Your task to perform on an android device: Go to Wikipedia Image 0: 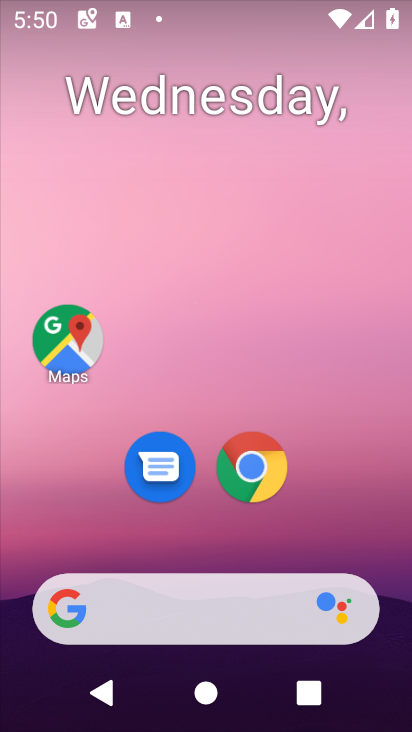
Step 0: click (262, 464)
Your task to perform on an android device: Go to Wikipedia Image 1: 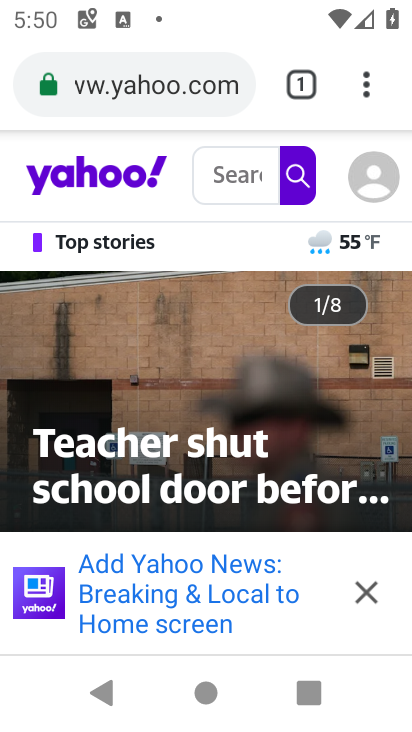
Step 1: click (354, 85)
Your task to perform on an android device: Go to Wikipedia Image 2: 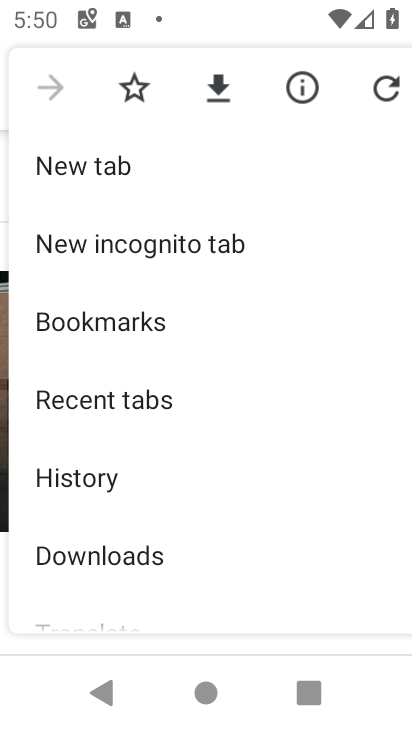
Step 2: drag from (204, 488) to (221, 141)
Your task to perform on an android device: Go to Wikipedia Image 3: 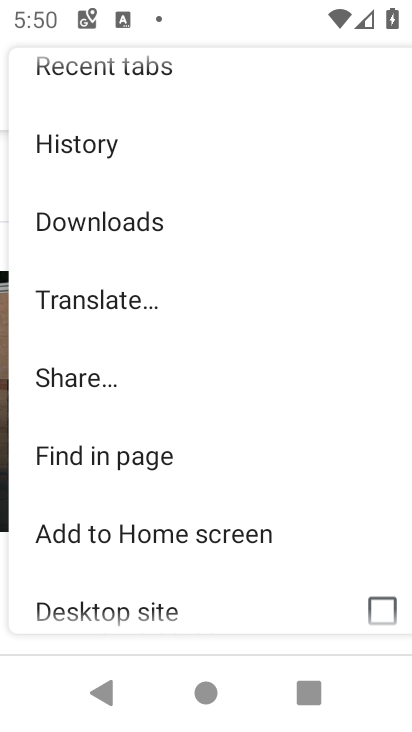
Step 3: drag from (142, 141) to (115, 575)
Your task to perform on an android device: Go to Wikipedia Image 4: 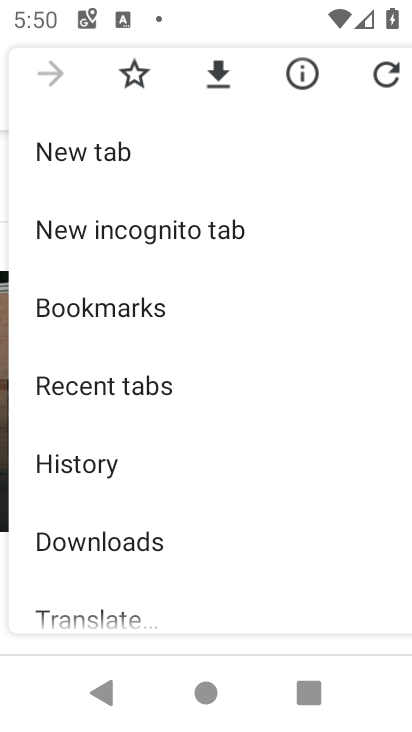
Step 4: click (70, 148)
Your task to perform on an android device: Go to Wikipedia Image 5: 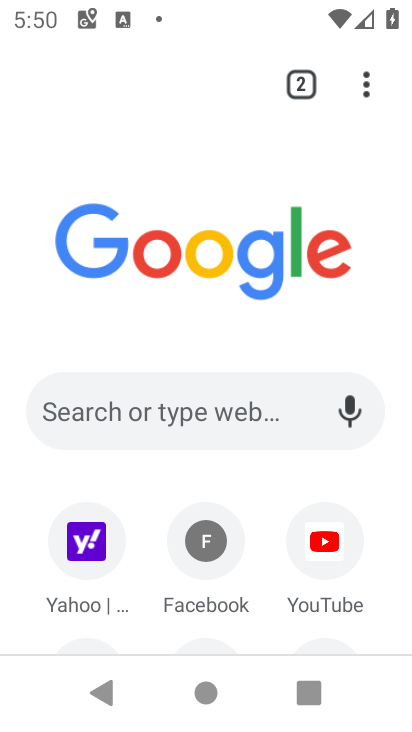
Step 5: drag from (233, 317) to (260, 40)
Your task to perform on an android device: Go to Wikipedia Image 6: 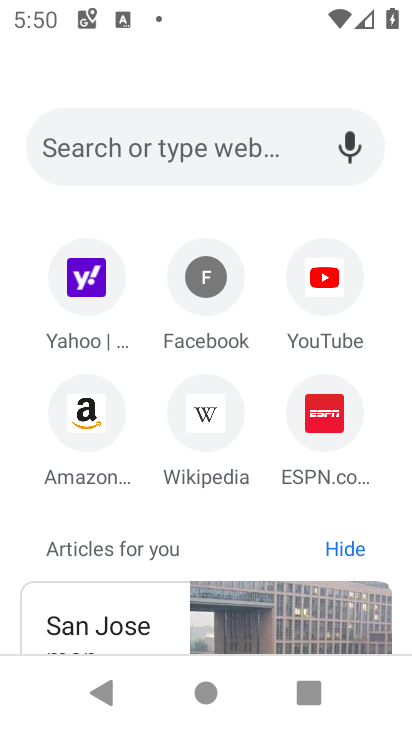
Step 6: click (200, 414)
Your task to perform on an android device: Go to Wikipedia Image 7: 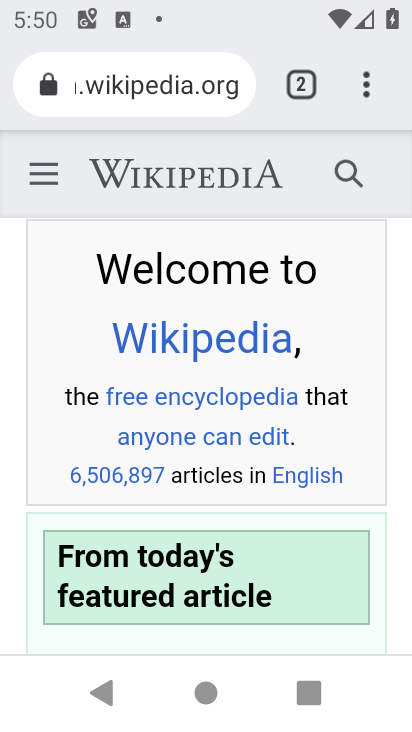
Step 7: task complete